Your task to perform on an android device: What's the weather going to be this weekend? Image 0: 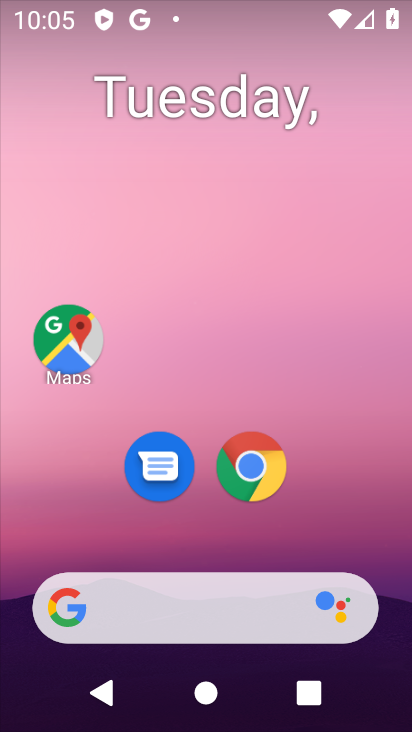
Step 0: click (253, 459)
Your task to perform on an android device: What's the weather going to be this weekend? Image 1: 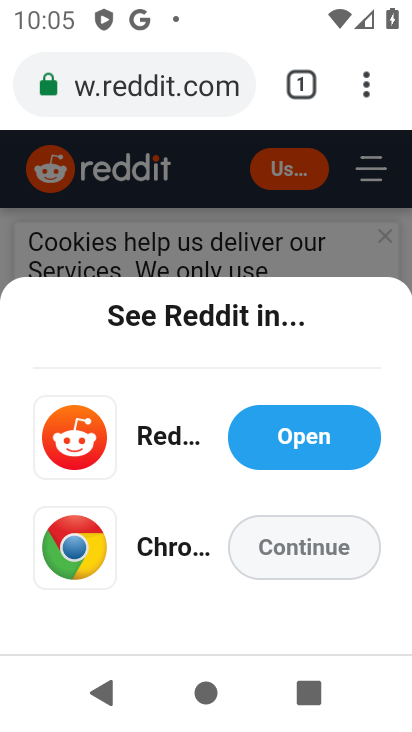
Step 1: click (214, 88)
Your task to perform on an android device: What's the weather going to be this weekend? Image 2: 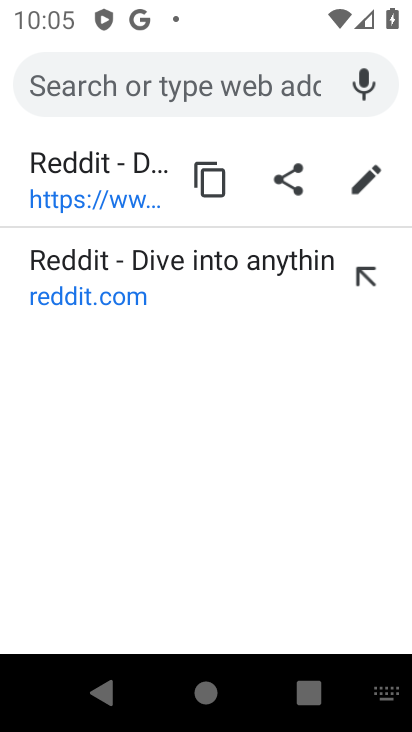
Step 2: type "weather"
Your task to perform on an android device: What's the weather going to be this weekend? Image 3: 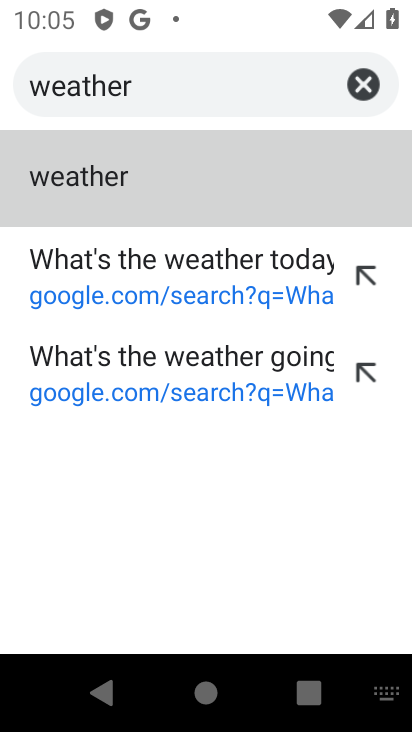
Step 3: click (60, 178)
Your task to perform on an android device: What's the weather going to be this weekend? Image 4: 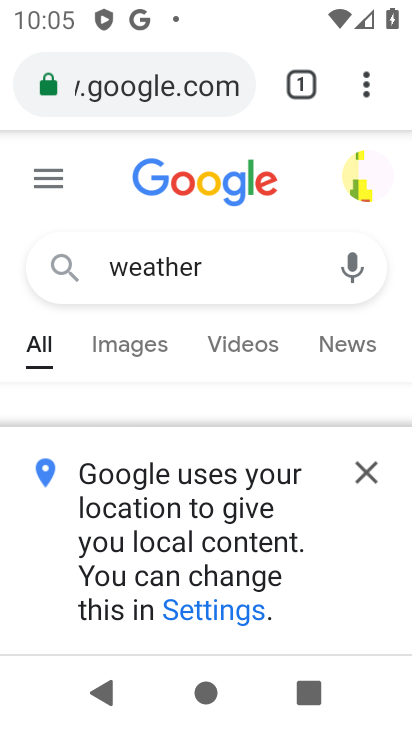
Step 4: drag from (184, 293) to (216, 33)
Your task to perform on an android device: What's the weather going to be this weekend? Image 5: 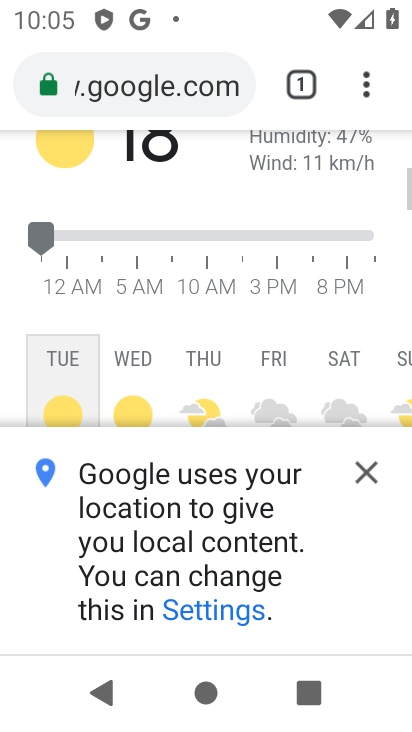
Step 5: drag from (234, 306) to (209, 104)
Your task to perform on an android device: What's the weather going to be this weekend? Image 6: 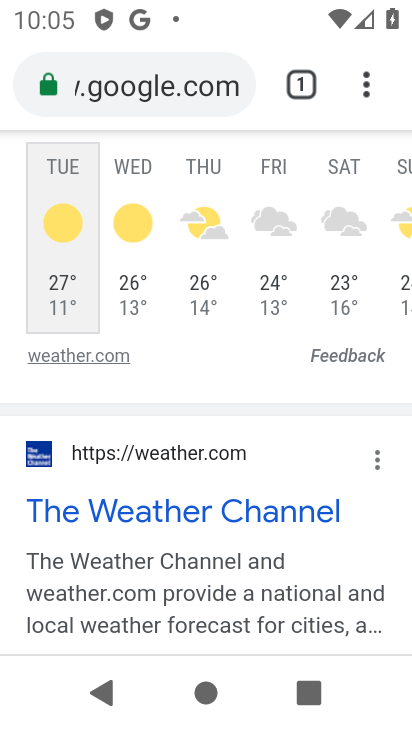
Step 6: click (362, 198)
Your task to perform on an android device: What's the weather going to be this weekend? Image 7: 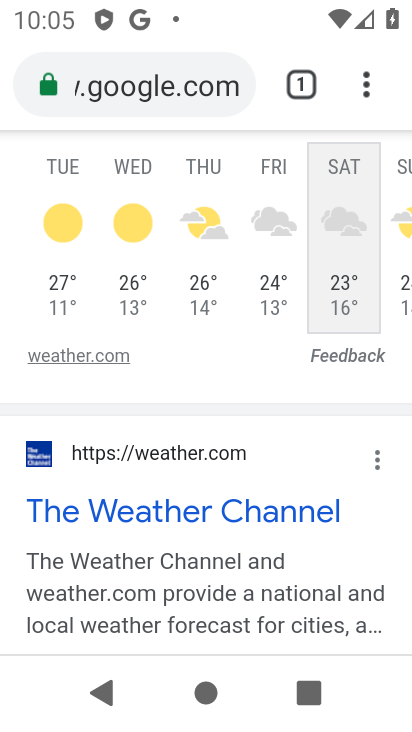
Step 7: task complete